Your task to perform on an android device: Go to Wikipedia Image 0: 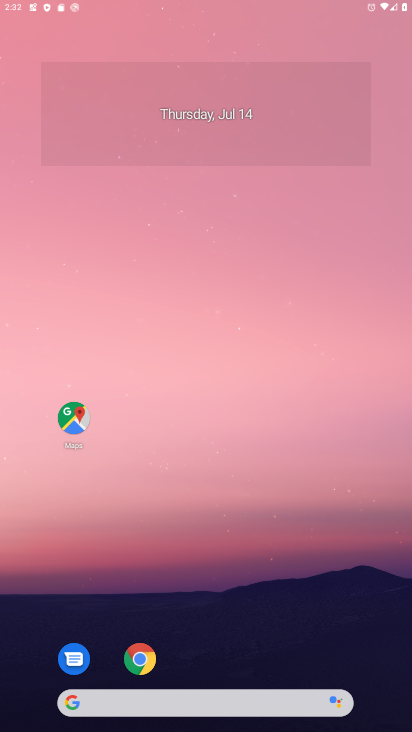
Step 0: press home button
Your task to perform on an android device: Go to Wikipedia Image 1: 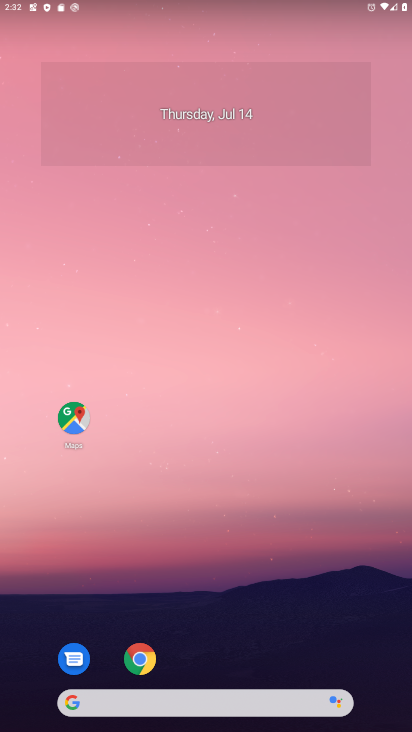
Step 1: click (72, 707)
Your task to perform on an android device: Go to Wikipedia Image 2: 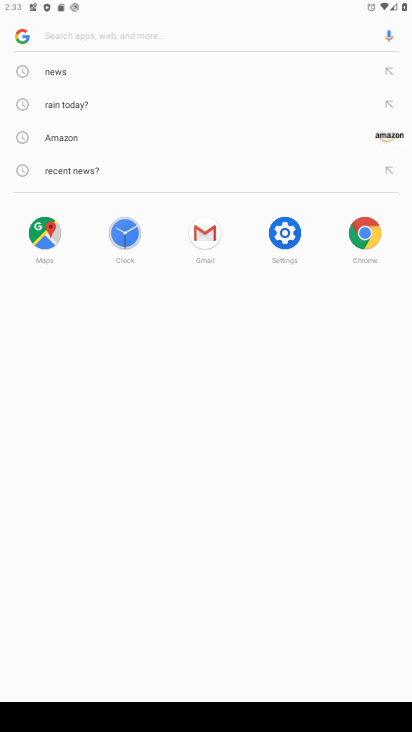
Step 2: type "Wikipedia"
Your task to perform on an android device: Go to Wikipedia Image 3: 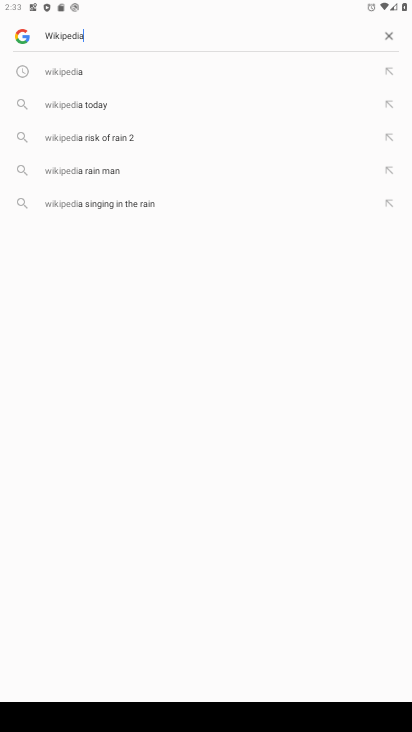
Step 3: press enter
Your task to perform on an android device: Go to Wikipedia Image 4: 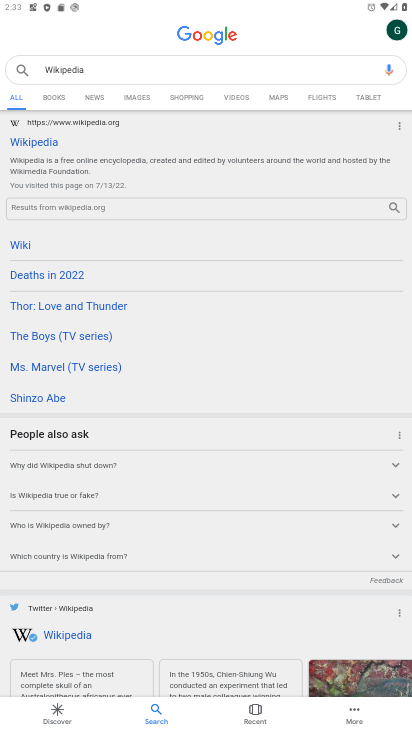
Step 4: click (30, 143)
Your task to perform on an android device: Go to Wikipedia Image 5: 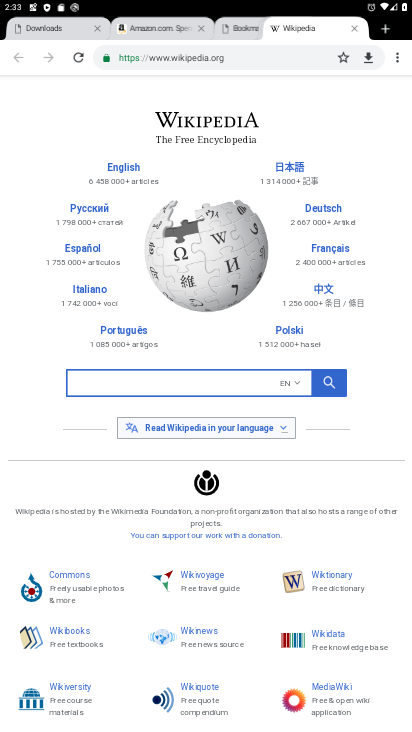
Step 5: task complete